Your task to perform on an android device: Open the calendar and show me this week's events? Image 0: 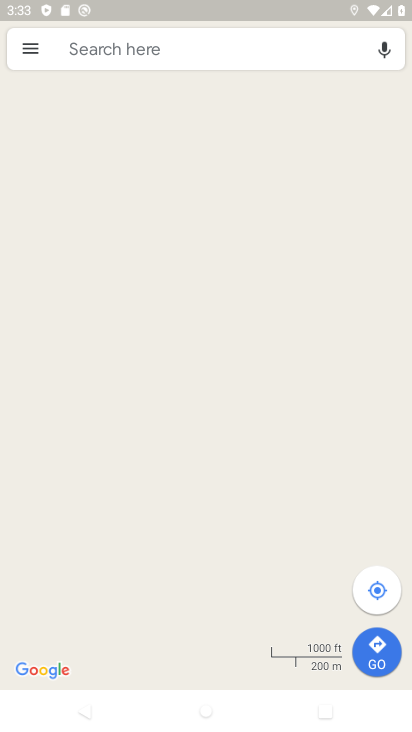
Step 0: press home button
Your task to perform on an android device: Open the calendar and show me this week's events? Image 1: 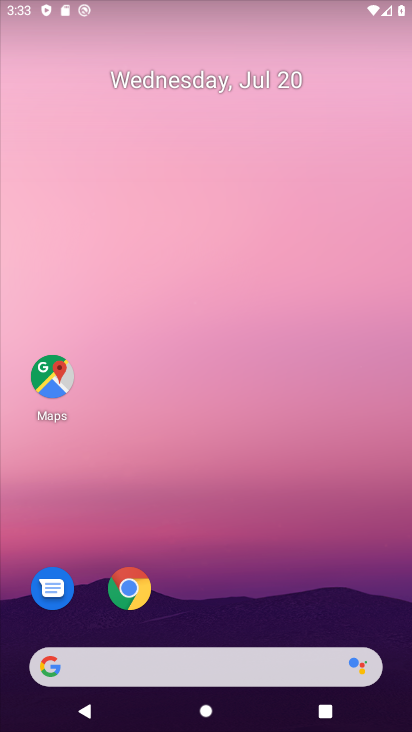
Step 1: drag from (179, 613) to (335, 2)
Your task to perform on an android device: Open the calendar and show me this week's events? Image 2: 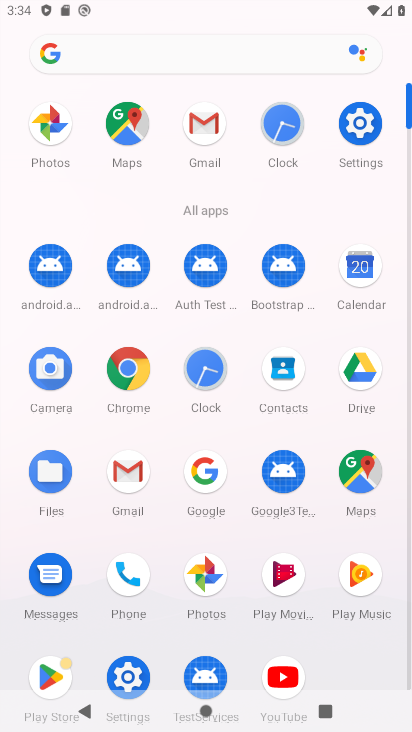
Step 2: click (354, 264)
Your task to perform on an android device: Open the calendar and show me this week's events? Image 3: 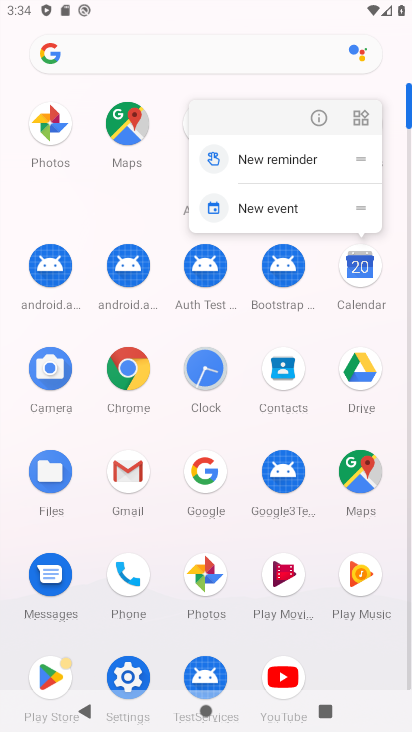
Step 3: click (316, 116)
Your task to perform on an android device: Open the calendar and show me this week's events? Image 4: 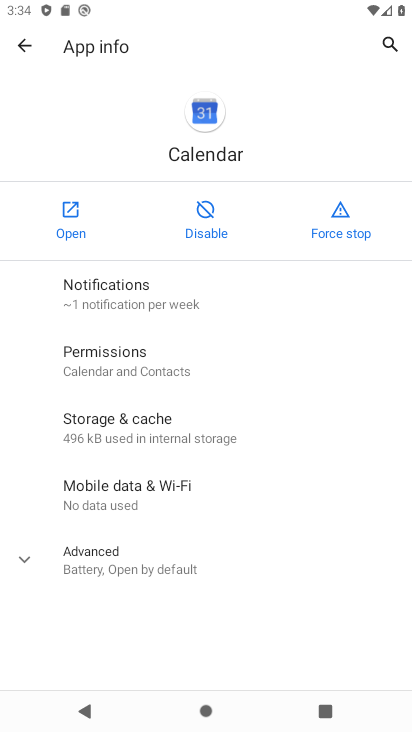
Step 4: click (70, 226)
Your task to perform on an android device: Open the calendar and show me this week's events? Image 5: 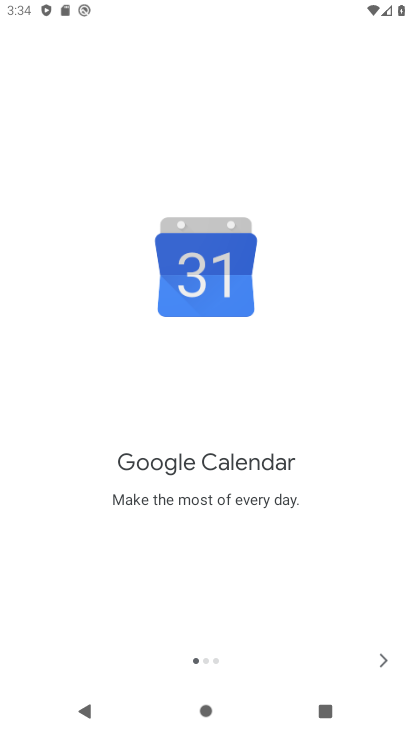
Step 5: click (383, 640)
Your task to perform on an android device: Open the calendar and show me this week's events? Image 6: 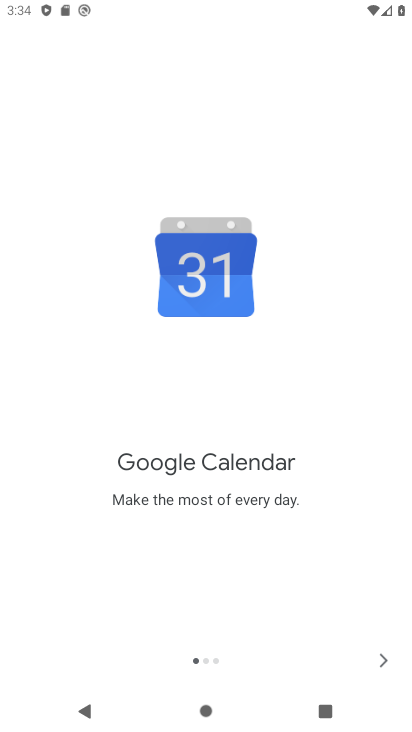
Step 6: click (382, 651)
Your task to perform on an android device: Open the calendar and show me this week's events? Image 7: 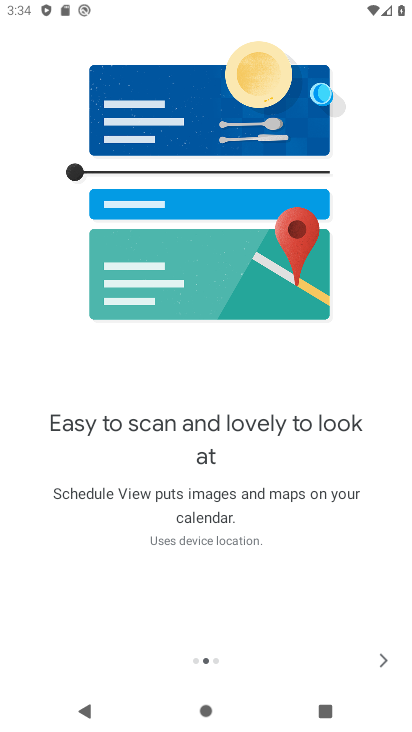
Step 7: click (380, 656)
Your task to perform on an android device: Open the calendar and show me this week's events? Image 8: 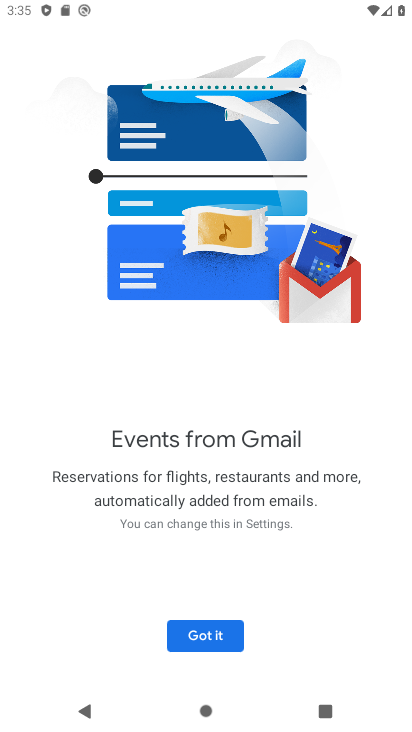
Step 8: click (195, 636)
Your task to perform on an android device: Open the calendar and show me this week's events? Image 9: 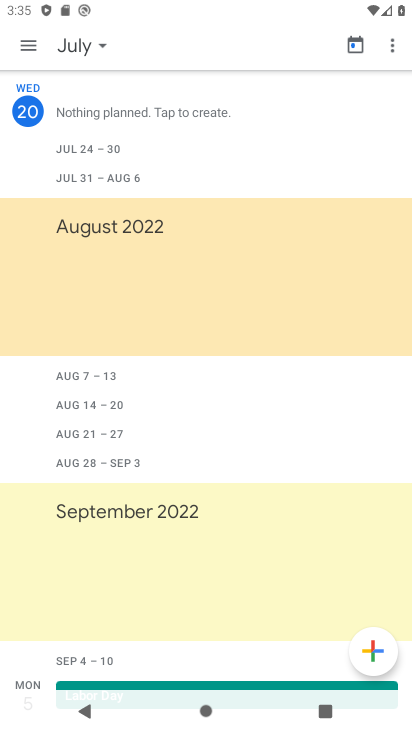
Step 9: click (106, 37)
Your task to perform on an android device: Open the calendar and show me this week's events? Image 10: 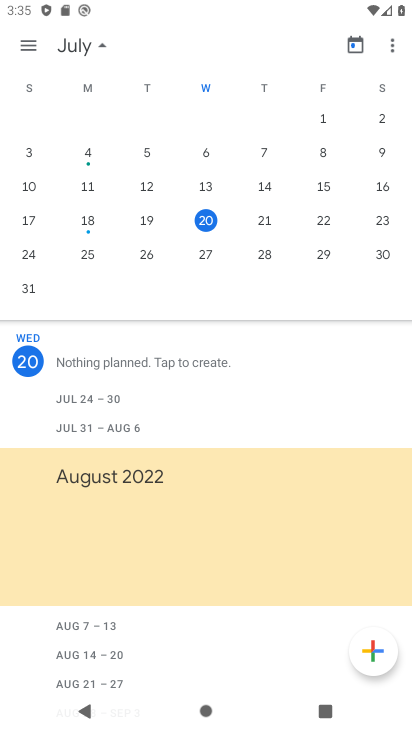
Step 10: click (377, 223)
Your task to perform on an android device: Open the calendar and show me this week's events? Image 11: 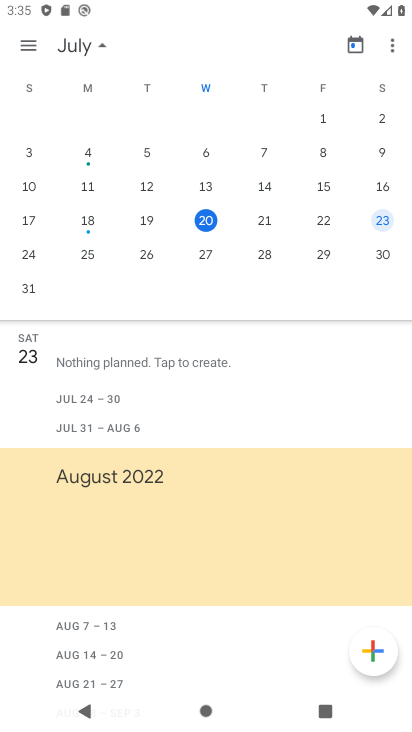
Step 11: click (391, 218)
Your task to perform on an android device: Open the calendar and show me this week's events? Image 12: 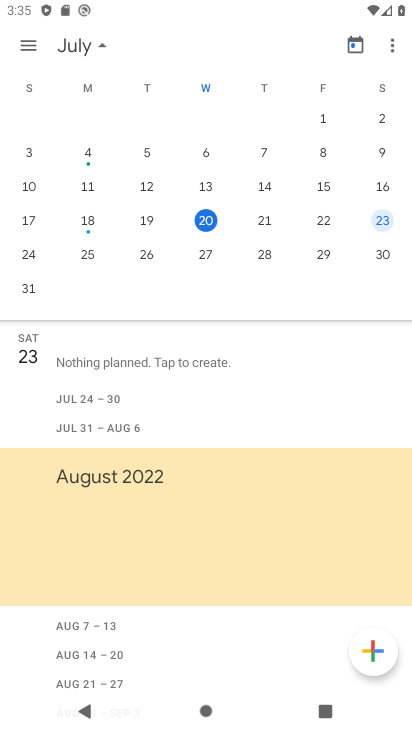
Step 12: task complete